Your task to perform on an android device: Show me productivity apps on the Play Store Image 0: 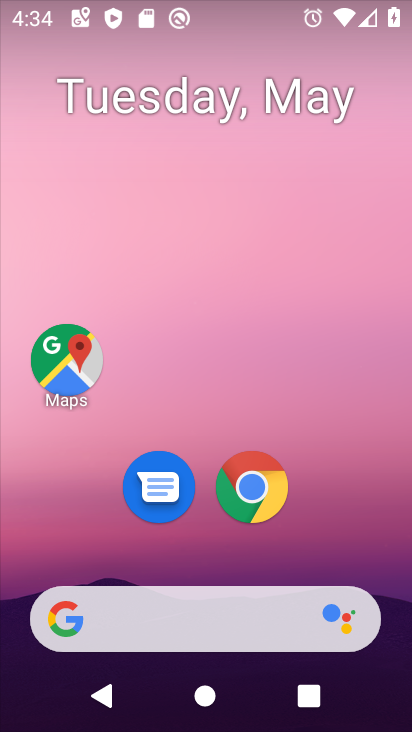
Step 0: drag from (334, 502) to (379, 5)
Your task to perform on an android device: Show me productivity apps on the Play Store Image 1: 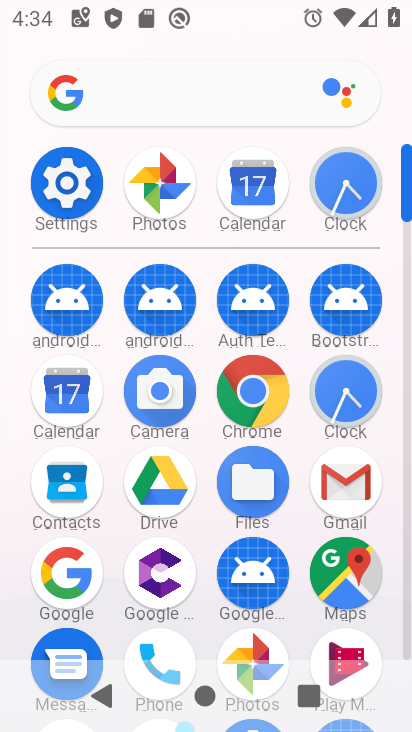
Step 1: drag from (291, 477) to (317, 170)
Your task to perform on an android device: Show me productivity apps on the Play Store Image 2: 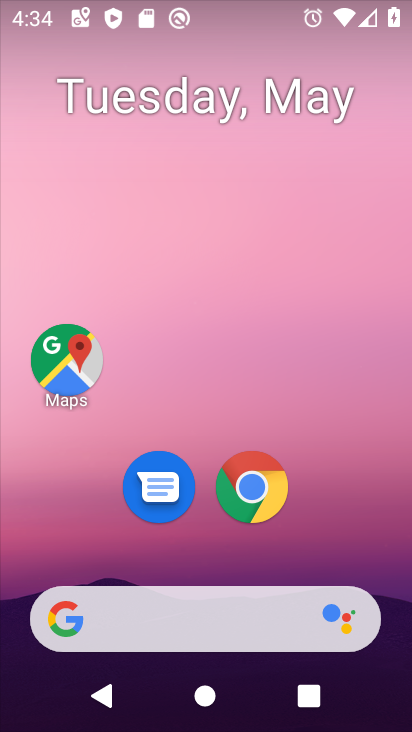
Step 2: drag from (317, 474) to (353, 83)
Your task to perform on an android device: Show me productivity apps on the Play Store Image 3: 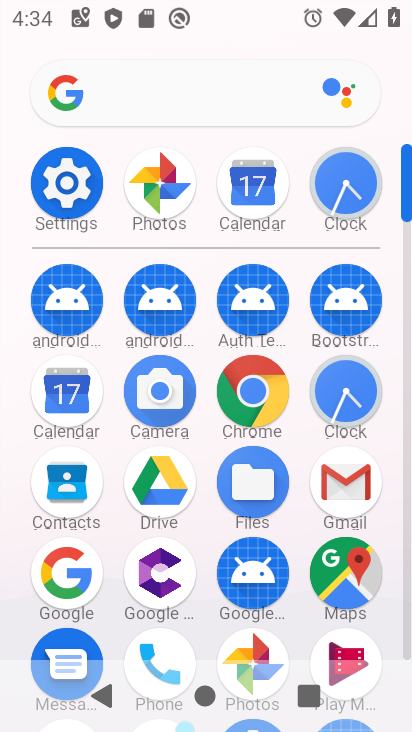
Step 3: drag from (301, 429) to (340, 114)
Your task to perform on an android device: Show me productivity apps on the Play Store Image 4: 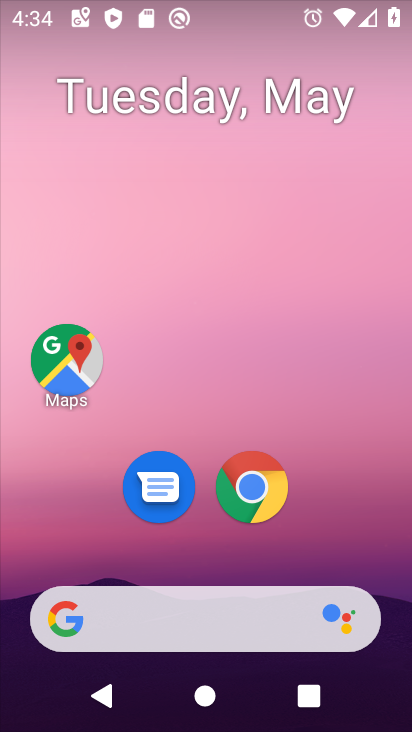
Step 4: drag from (355, 420) to (409, 50)
Your task to perform on an android device: Show me productivity apps on the Play Store Image 5: 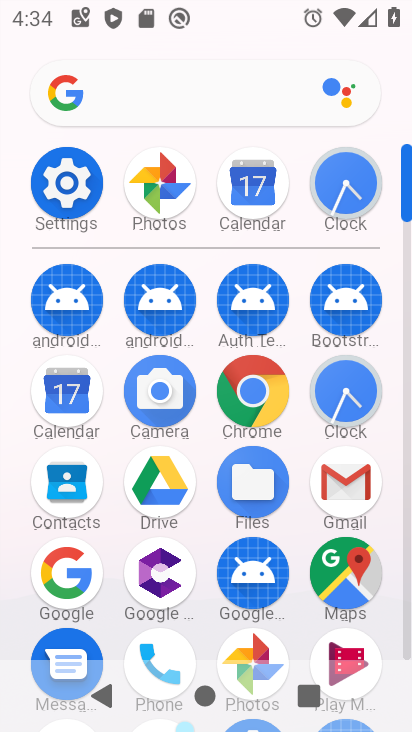
Step 5: drag from (300, 534) to (304, 189)
Your task to perform on an android device: Show me productivity apps on the Play Store Image 6: 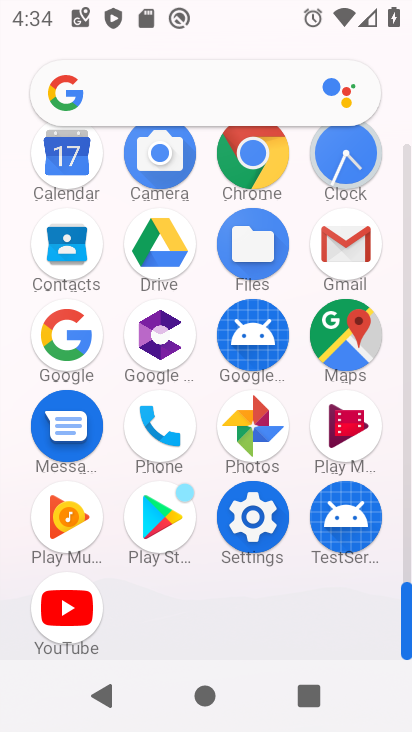
Step 6: click (172, 497)
Your task to perform on an android device: Show me productivity apps on the Play Store Image 7: 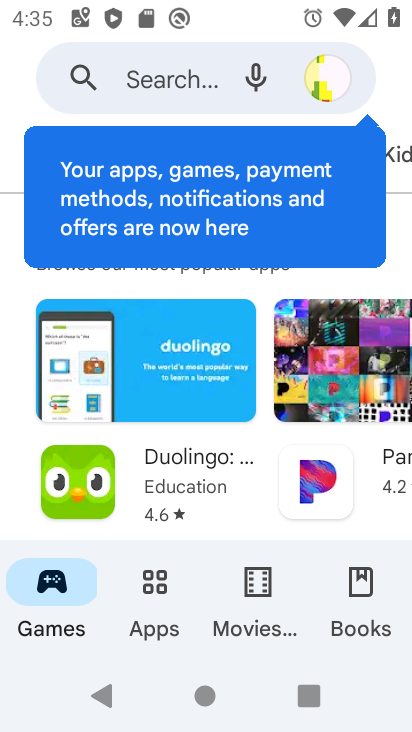
Step 7: drag from (214, 483) to (287, 159)
Your task to perform on an android device: Show me productivity apps on the Play Store Image 8: 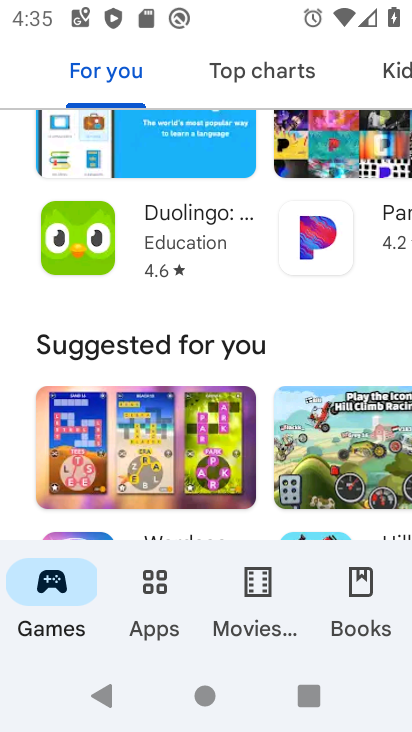
Step 8: drag from (201, 432) to (306, 68)
Your task to perform on an android device: Show me productivity apps on the Play Store Image 9: 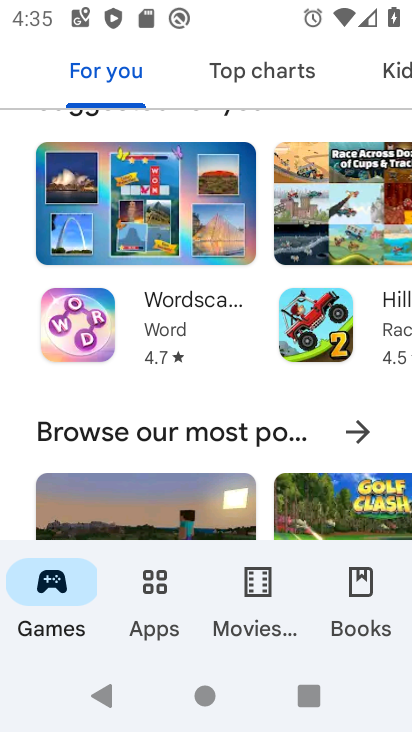
Step 9: drag from (183, 397) to (251, 104)
Your task to perform on an android device: Show me productivity apps on the Play Store Image 10: 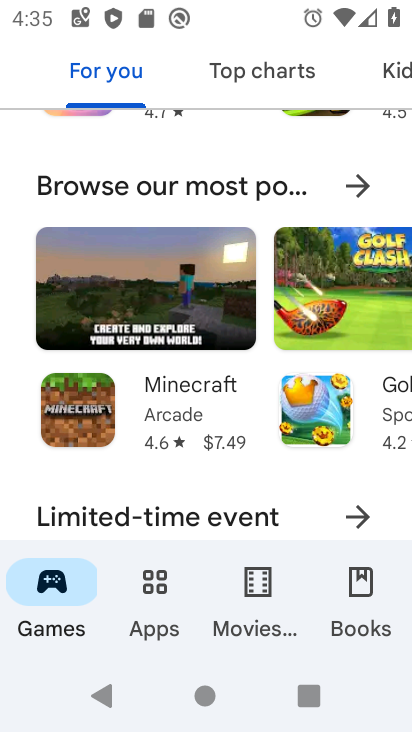
Step 10: drag from (212, 297) to (264, 176)
Your task to perform on an android device: Show me productivity apps on the Play Store Image 11: 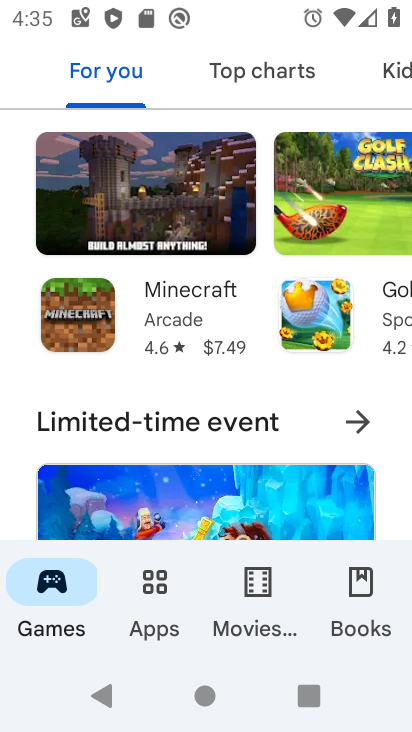
Step 11: click (150, 570)
Your task to perform on an android device: Show me productivity apps on the Play Store Image 12: 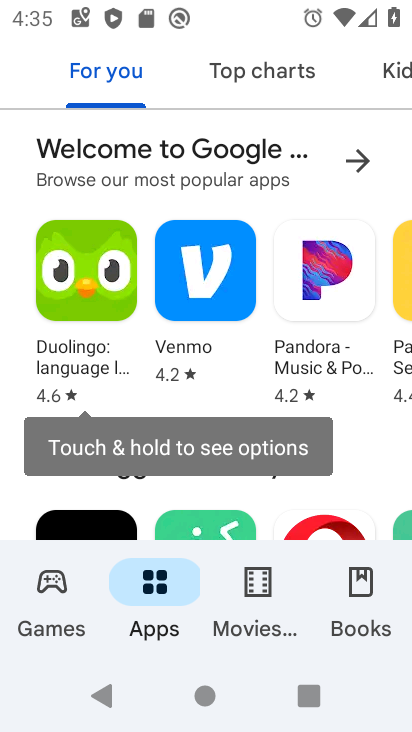
Step 12: drag from (175, 471) to (258, 144)
Your task to perform on an android device: Show me productivity apps on the Play Store Image 13: 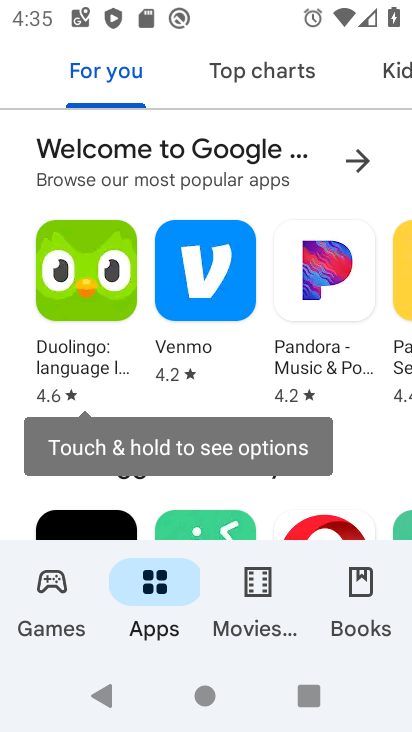
Step 13: drag from (193, 403) to (282, 123)
Your task to perform on an android device: Show me productivity apps on the Play Store Image 14: 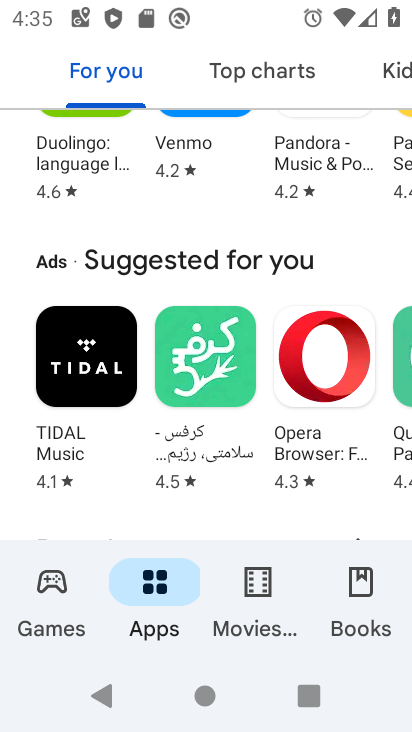
Step 14: drag from (192, 491) to (265, 202)
Your task to perform on an android device: Show me productivity apps on the Play Store Image 15: 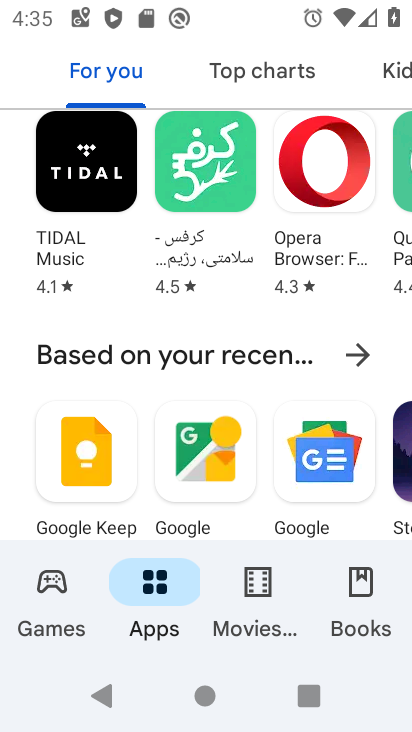
Step 15: drag from (209, 470) to (287, 176)
Your task to perform on an android device: Show me productivity apps on the Play Store Image 16: 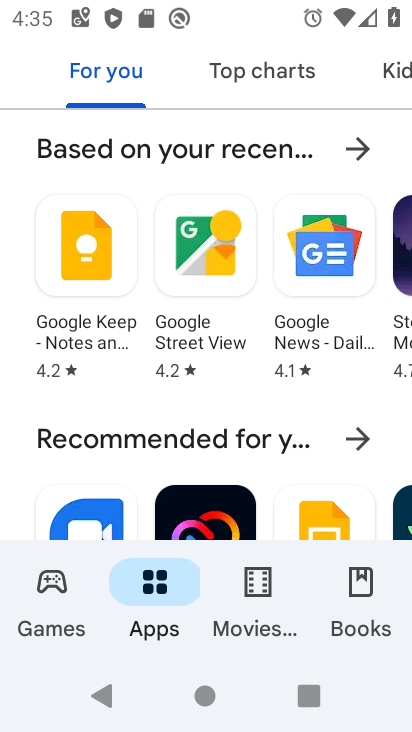
Step 16: drag from (215, 404) to (276, 160)
Your task to perform on an android device: Show me productivity apps on the Play Store Image 17: 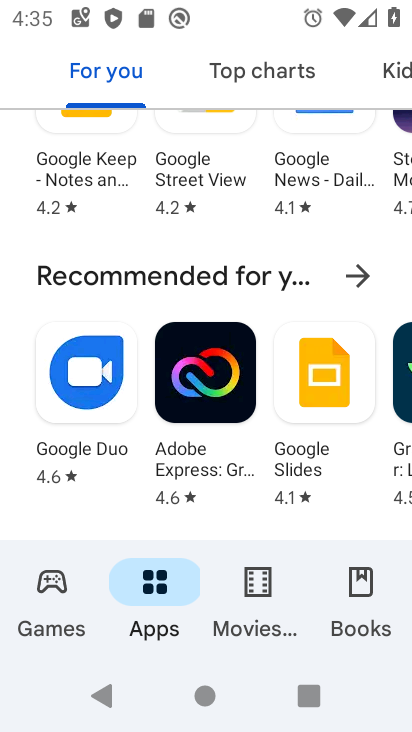
Step 17: drag from (208, 521) to (274, 163)
Your task to perform on an android device: Show me productivity apps on the Play Store Image 18: 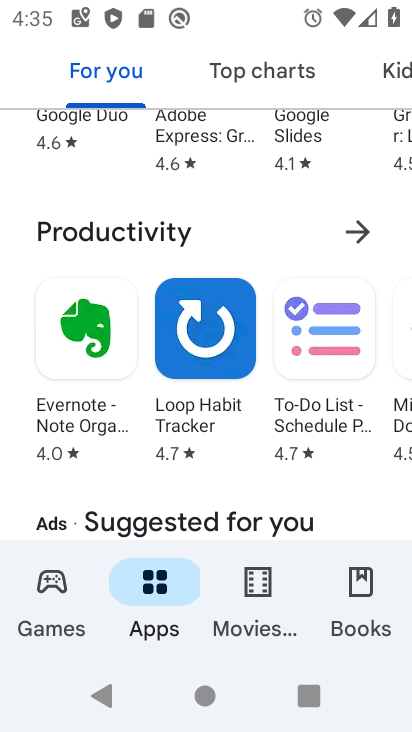
Step 18: click (190, 481)
Your task to perform on an android device: Show me productivity apps on the Play Store Image 19: 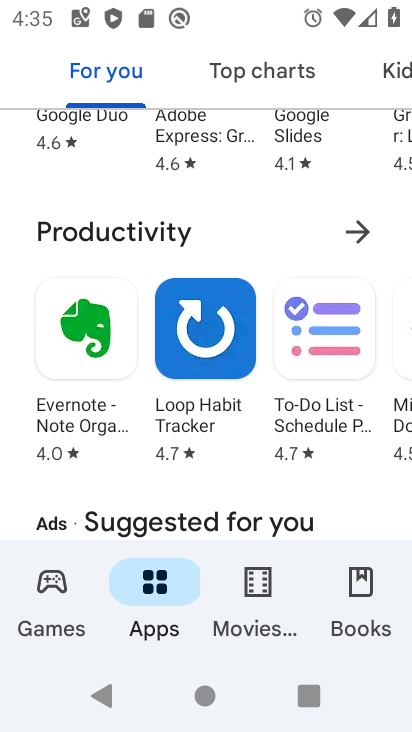
Step 19: task complete